Your task to perform on an android device: see tabs open on other devices in the chrome app Image 0: 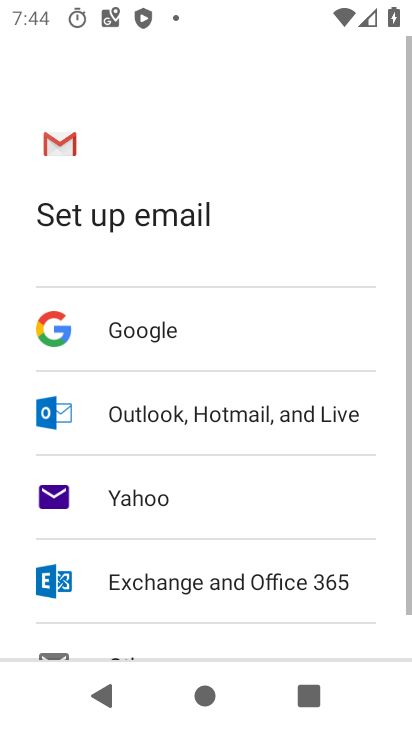
Step 0: press home button
Your task to perform on an android device: see tabs open on other devices in the chrome app Image 1: 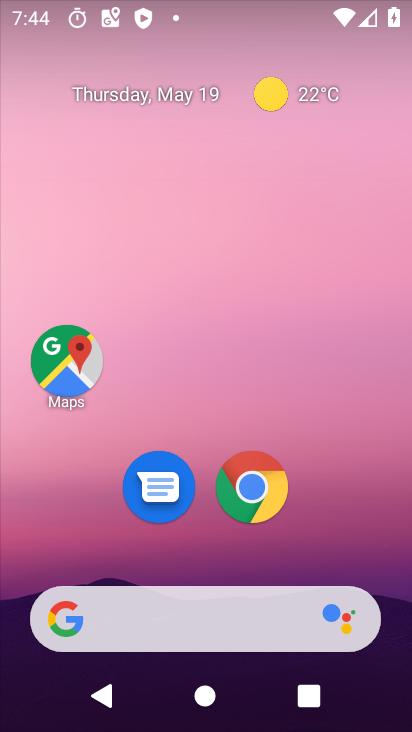
Step 1: click (255, 494)
Your task to perform on an android device: see tabs open on other devices in the chrome app Image 2: 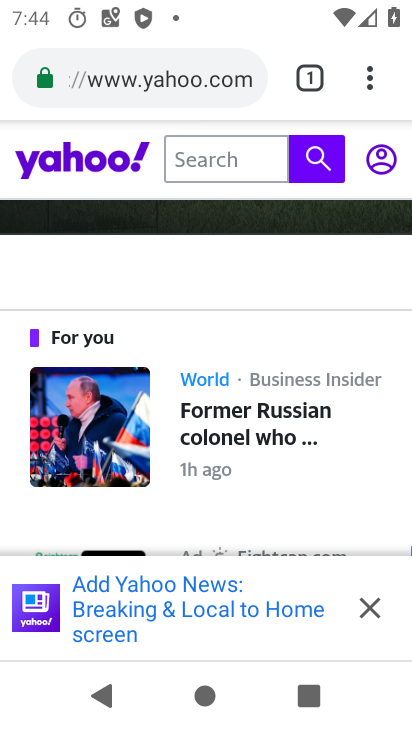
Step 2: task complete